Your task to perform on an android device: Open the web browser Image 0: 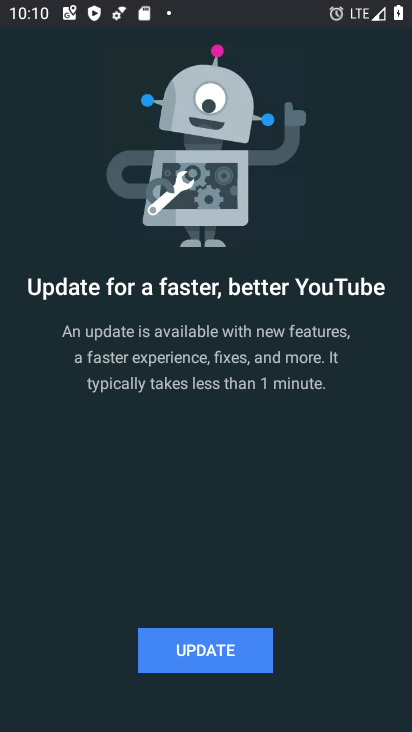
Step 0: task impossible